Your task to perform on an android device: Open the calendar and show me this week's events? Image 0: 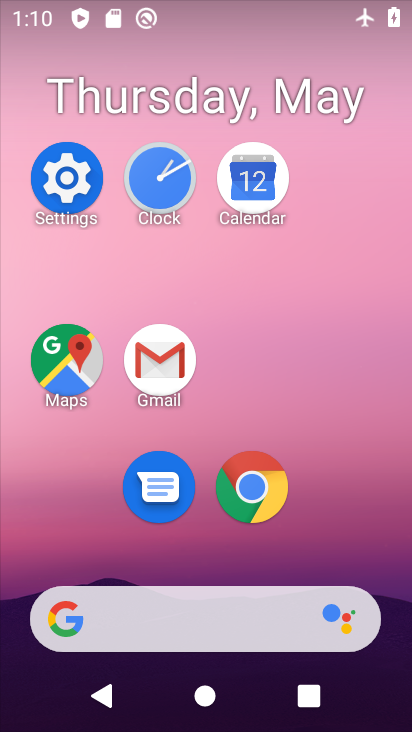
Step 0: click (248, 180)
Your task to perform on an android device: Open the calendar and show me this week's events? Image 1: 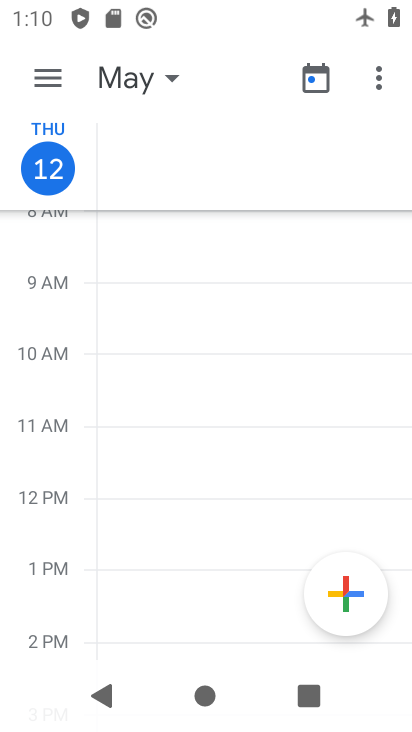
Step 1: click (44, 70)
Your task to perform on an android device: Open the calendar and show me this week's events? Image 2: 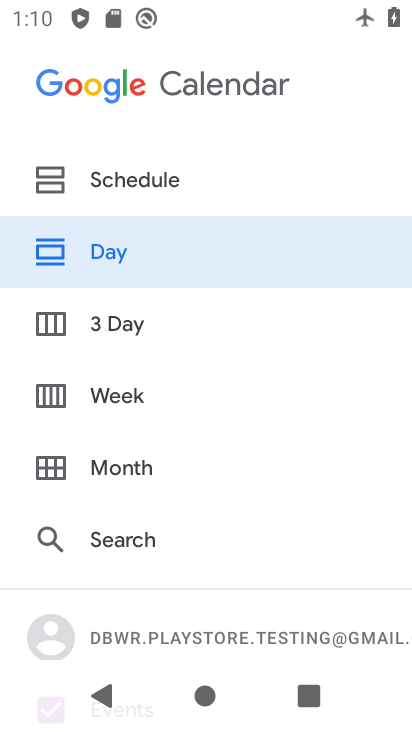
Step 2: click (130, 392)
Your task to perform on an android device: Open the calendar and show me this week's events? Image 3: 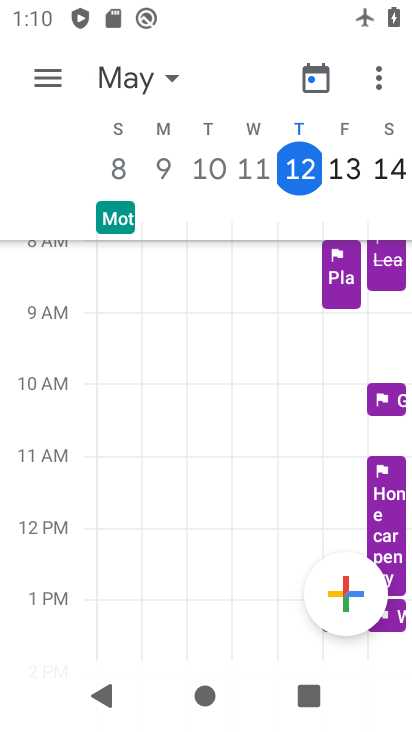
Step 3: task complete